Your task to perform on an android device: Open calendar and show me the third week of next month Image 0: 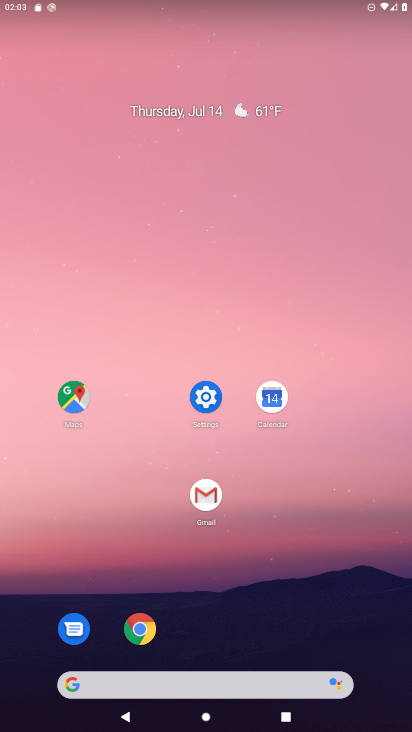
Step 0: click (274, 390)
Your task to perform on an android device: Open calendar and show me the third week of next month Image 1: 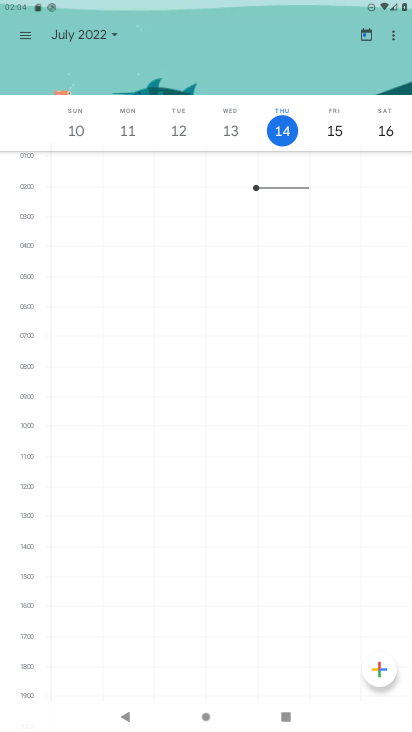
Step 1: task complete